Your task to perform on an android device: Open Chrome and go to settings Image 0: 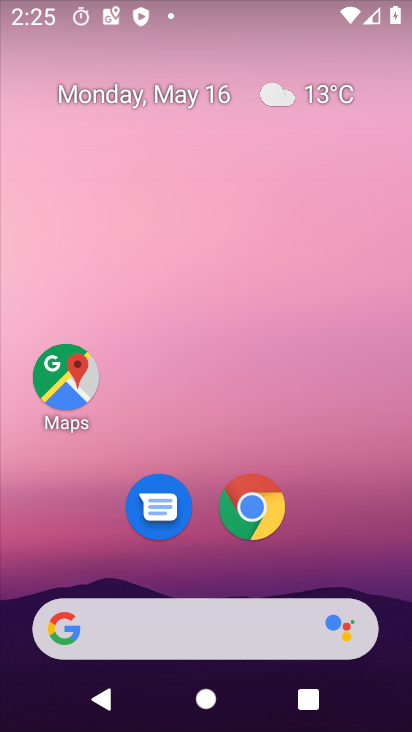
Step 0: drag from (341, 480) to (351, 139)
Your task to perform on an android device: Open Chrome and go to settings Image 1: 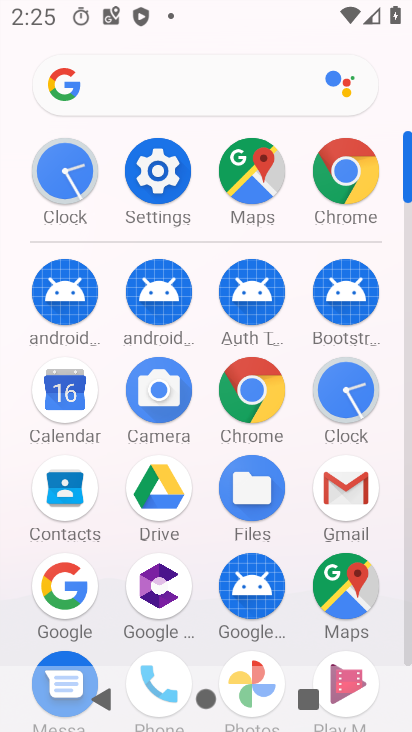
Step 1: click (263, 411)
Your task to perform on an android device: Open Chrome and go to settings Image 2: 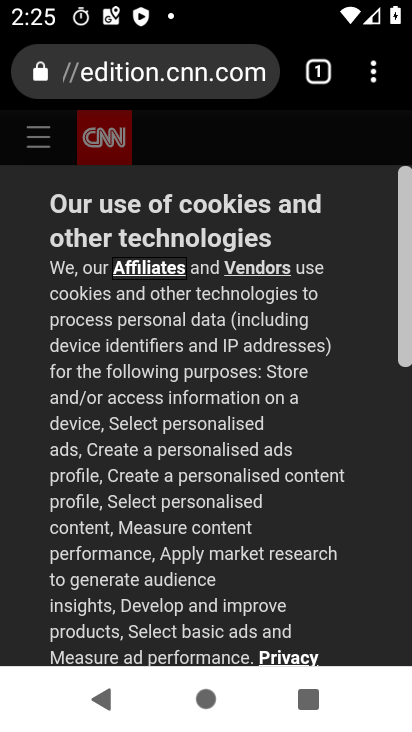
Step 2: click (371, 78)
Your task to perform on an android device: Open Chrome and go to settings Image 3: 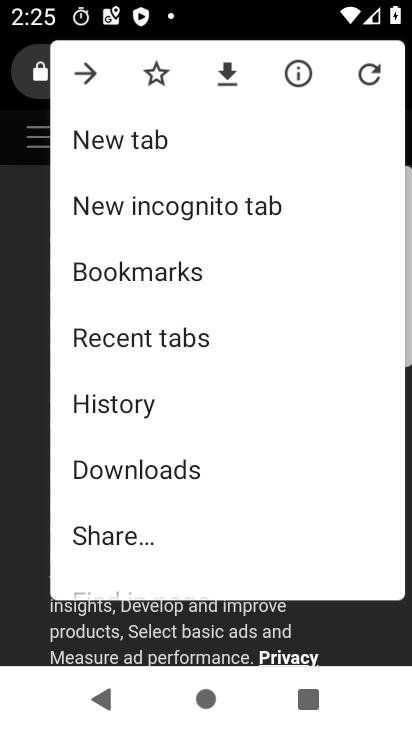
Step 3: drag from (328, 470) to (334, 350)
Your task to perform on an android device: Open Chrome and go to settings Image 4: 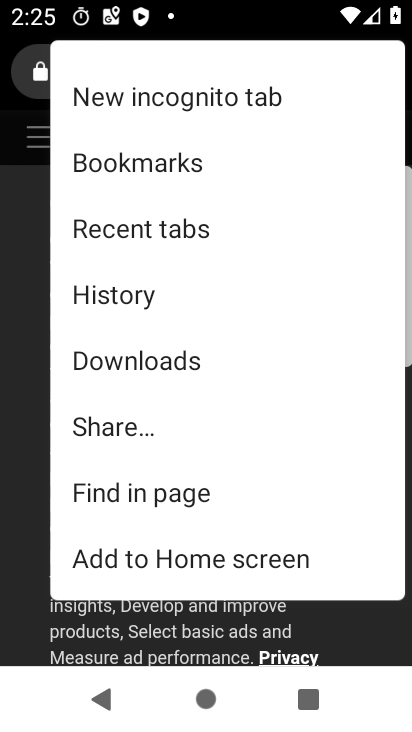
Step 4: drag from (327, 496) to (334, 350)
Your task to perform on an android device: Open Chrome and go to settings Image 5: 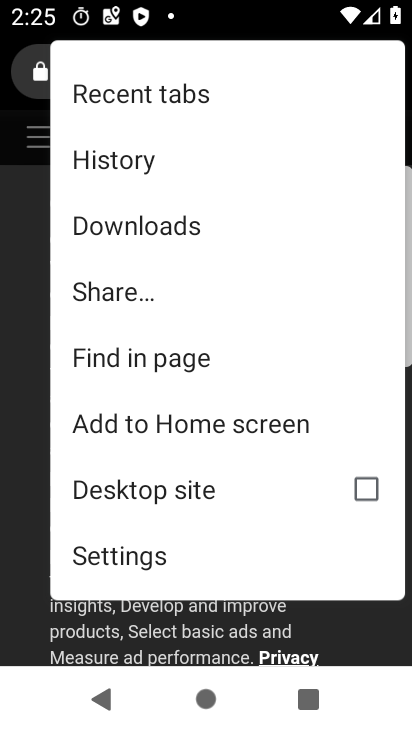
Step 5: drag from (271, 519) to (278, 471)
Your task to perform on an android device: Open Chrome and go to settings Image 6: 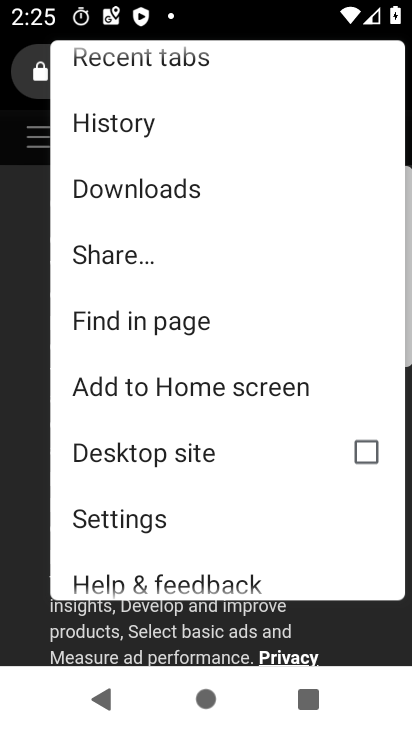
Step 6: click (165, 528)
Your task to perform on an android device: Open Chrome and go to settings Image 7: 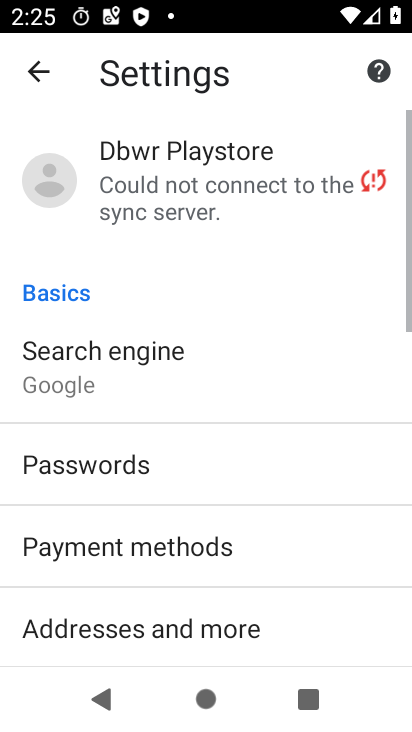
Step 7: task complete